Your task to perform on an android device: check out phone information Image 0: 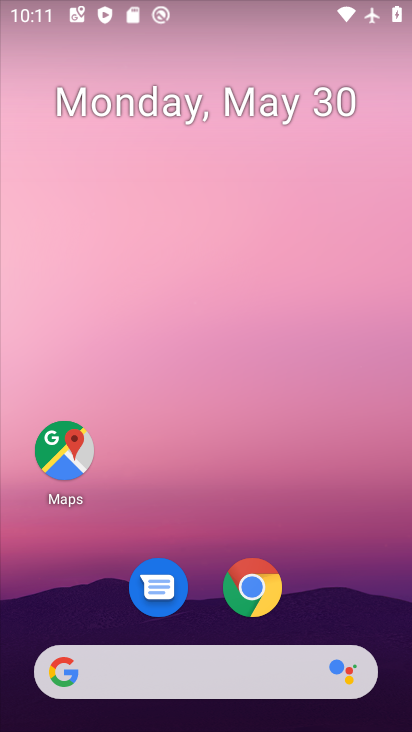
Step 0: drag from (377, 581) to (253, 0)
Your task to perform on an android device: check out phone information Image 1: 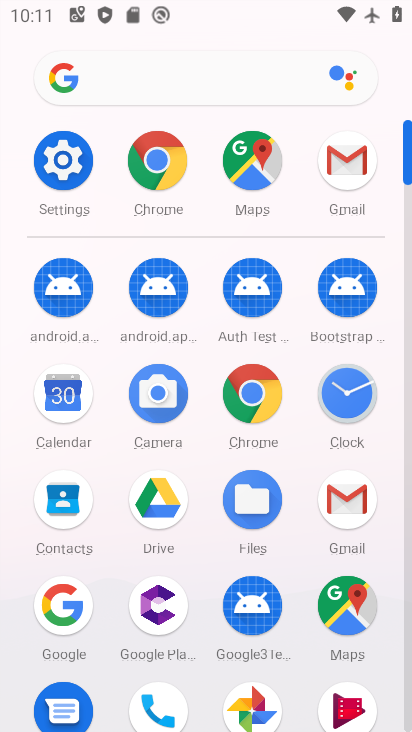
Step 1: drag from (4, 537) to (13, 191)
Your task to perform on an android device: check out phone information Image 2: 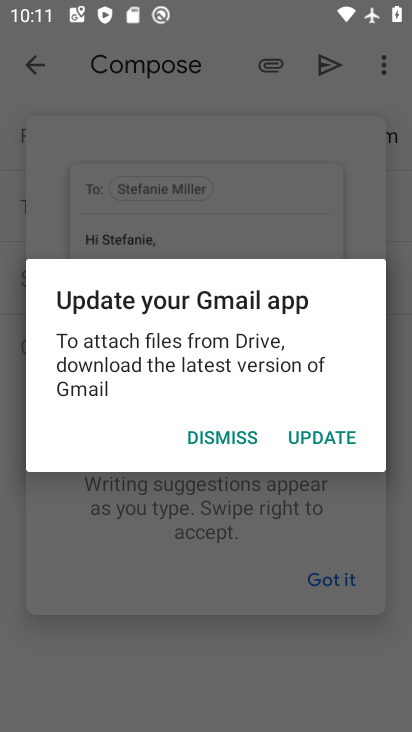
Step 2: press back button
Your task to perform on an android device: check out phone information Image 3: 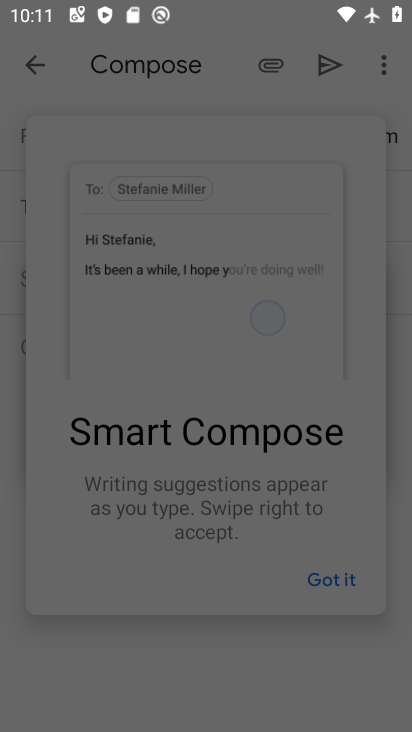
Step 3: press home button
Your task to perform on an android device: check out phone information Image 4: 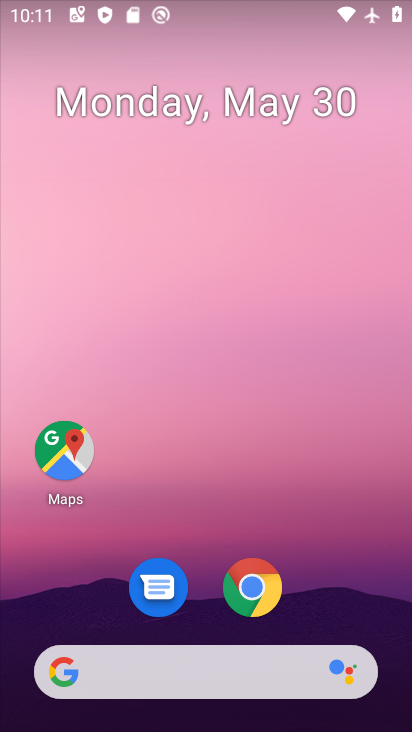
Step 4: drag from (362, 551) to (194, 25)
Your task to perform on an android device: check out phone information Image 5: 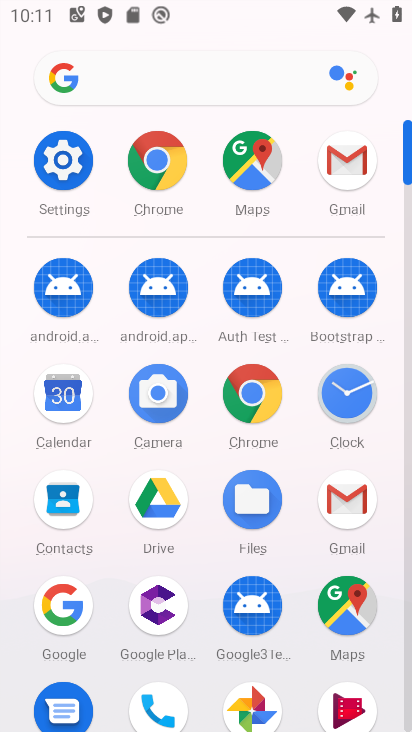
Step 5: click (63, 158)
Your task to perform on an android device: check out phone information Image 6: 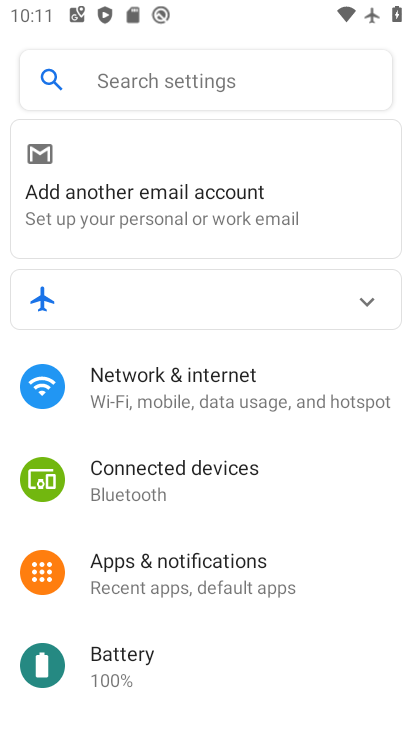
Step 6: drag from (299, 641) to (319, 144)
Your task to perform on an android device: check out phone information Image 7: 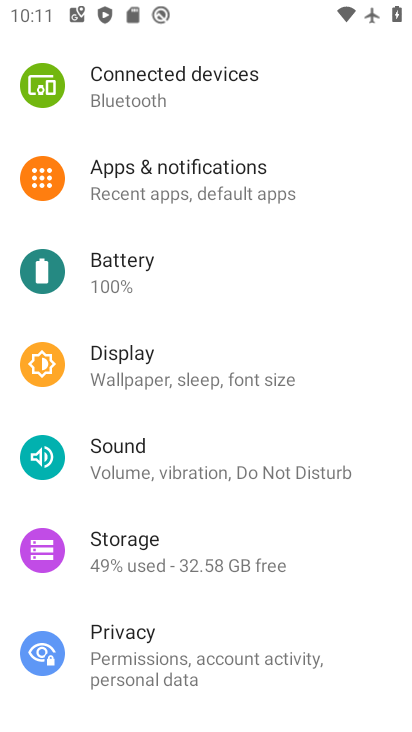
Step 7: drag from (268, 552) to (268, 119)
Your task to perform on an android device: check out phone information Image 8: 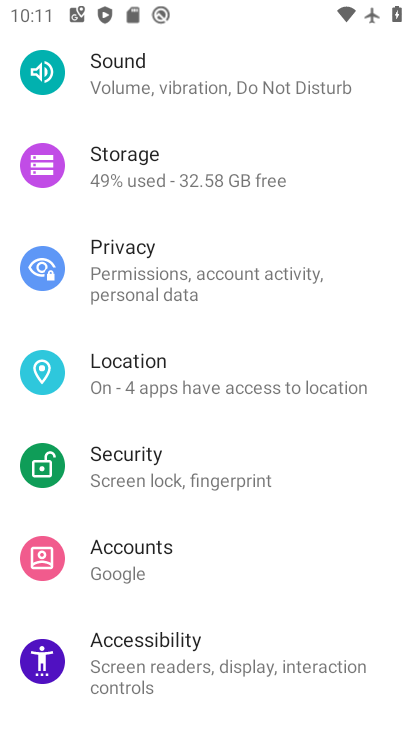
Step 8: drag from (268, 578) to (286, 139)
Your task to perform on an android device: check out phone information Image 9: 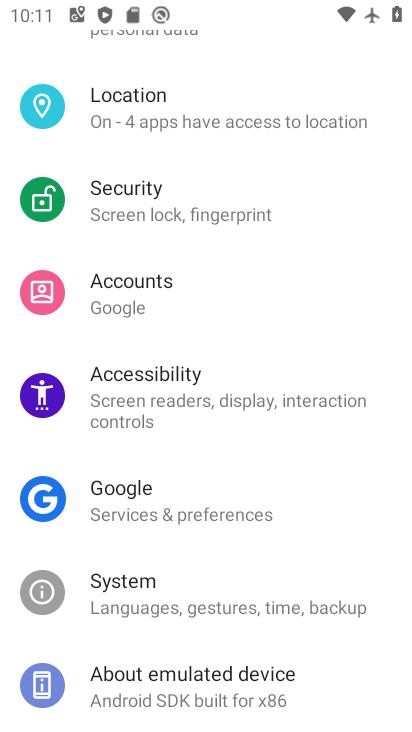
Step 9: click (189, 689)
Your task to perform on an android device: check out phone information Image 10: 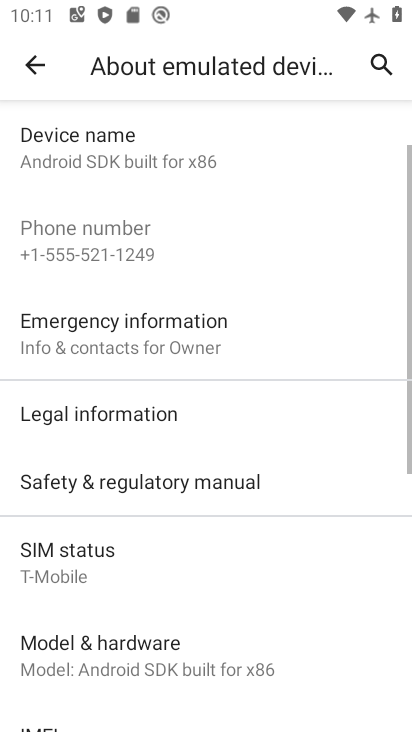
Step 10: task complete